Your task to perform on an android device: Empty the shopping cart on costco. Search for apple airpods on costco, select the first entry, and add it to the cart. Image 0: 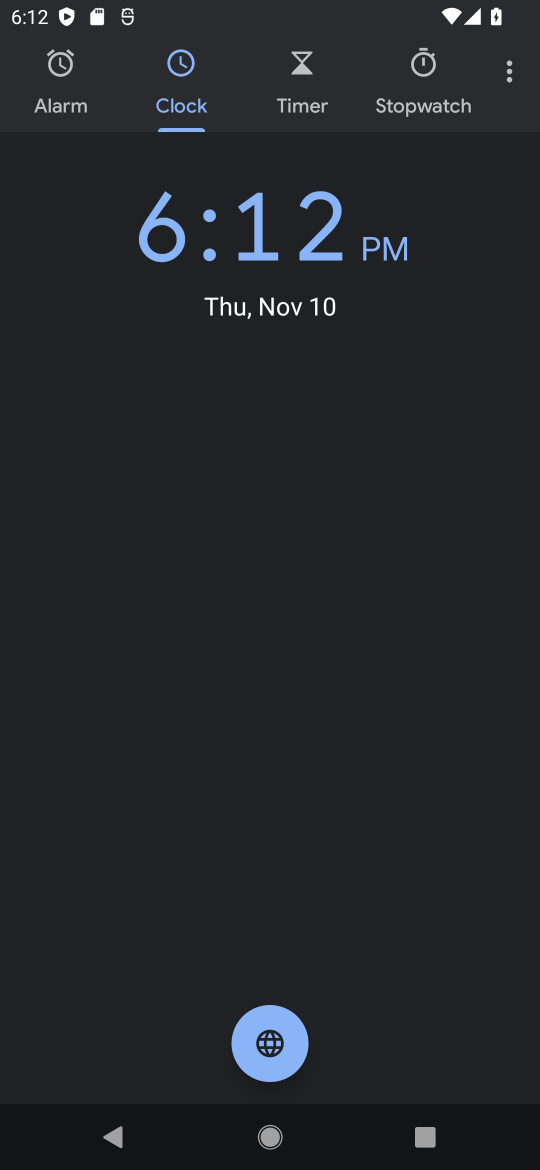
Step 0: press home button
Your task to perform on an android device: Empty the shopping cart on costco. Search for apple airpods on costco, select the first entry, and add it to the cart. Image 1: 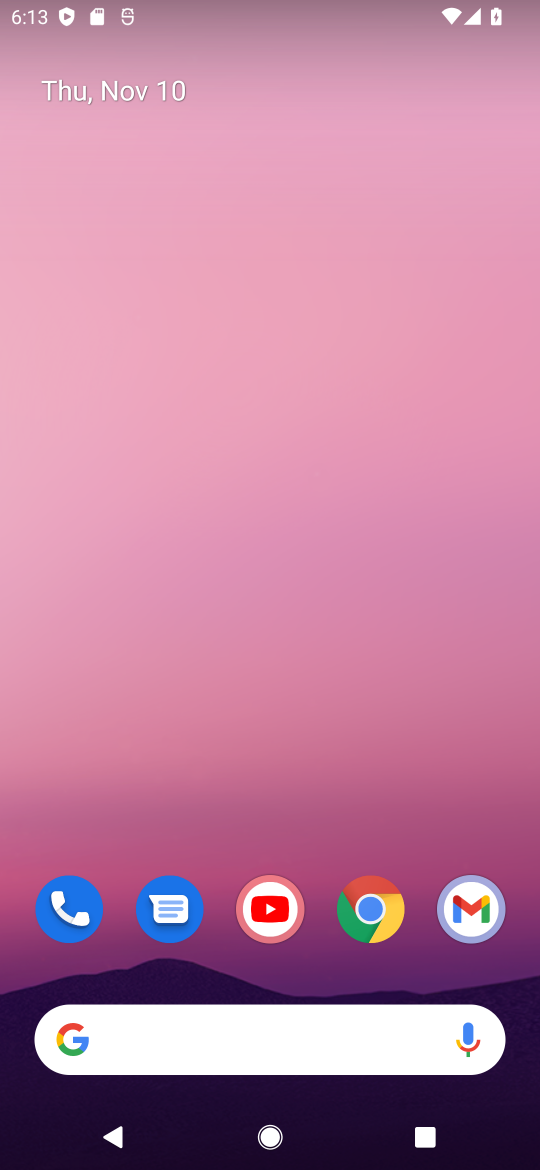
Step 1: drag from (204, 1051) to (266, 328)
Your task to perform on an android device: Empty the shopping cart on costco. Search for apple airpods on costco, select the first entry, and add it to the cart. Image 2: 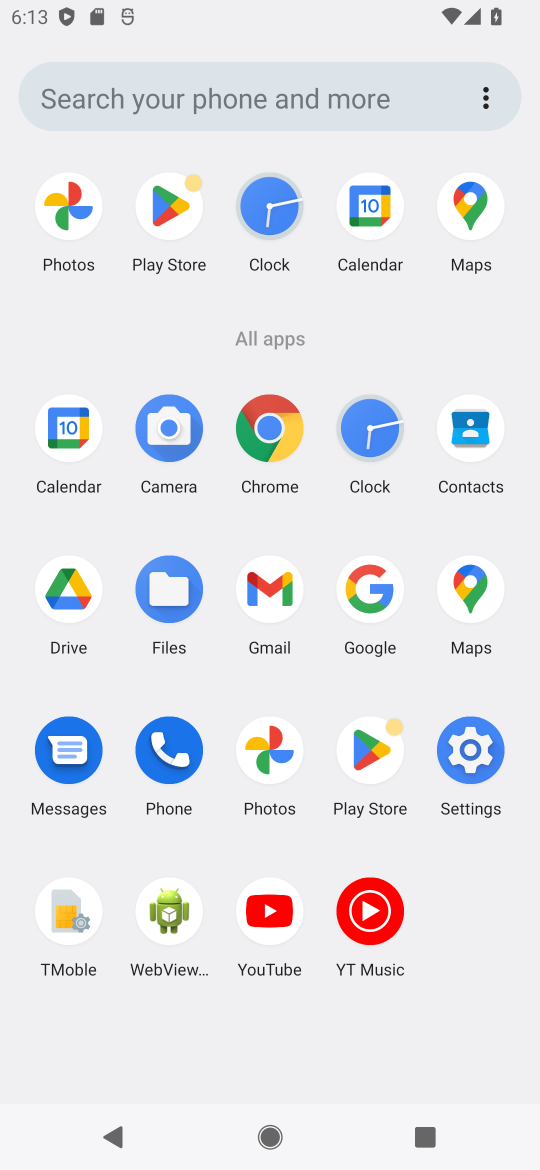
Step 2: click (362, 573)
Your task to perform on an android device: Empty the shopping cart on costco. Search for apple airpods on costco, select the first entry, and add it to the cart. Image 3: 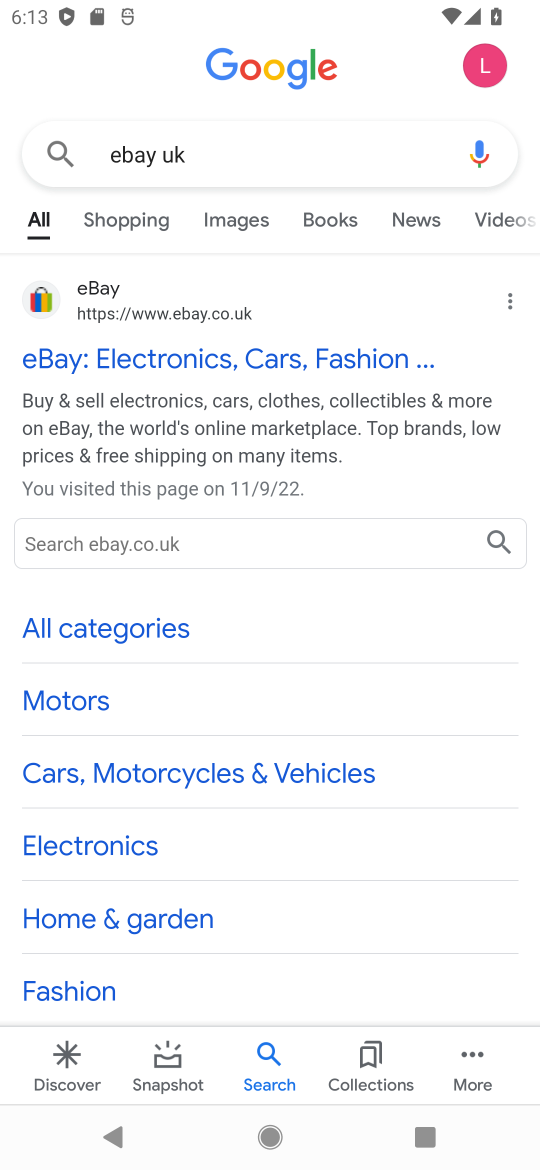
Step 3: click (311, 135)
Your task to perform on an android device: Empty the shopping cart on costco. Search for apple airpods on costco, select the first entry, and add it to the cart. Image 4: 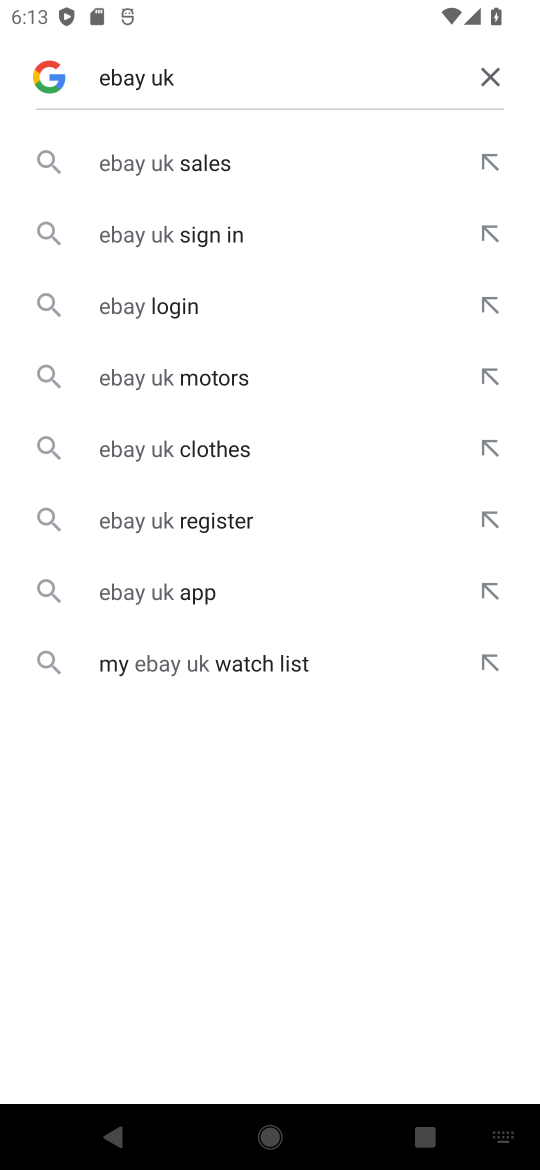
Step 4: click (493, 68)
Your task to perform on an android device: Empty the shopping cart on costco. Search for apple airpods on costco, select the first entry, and add it to the cart. Image 5: 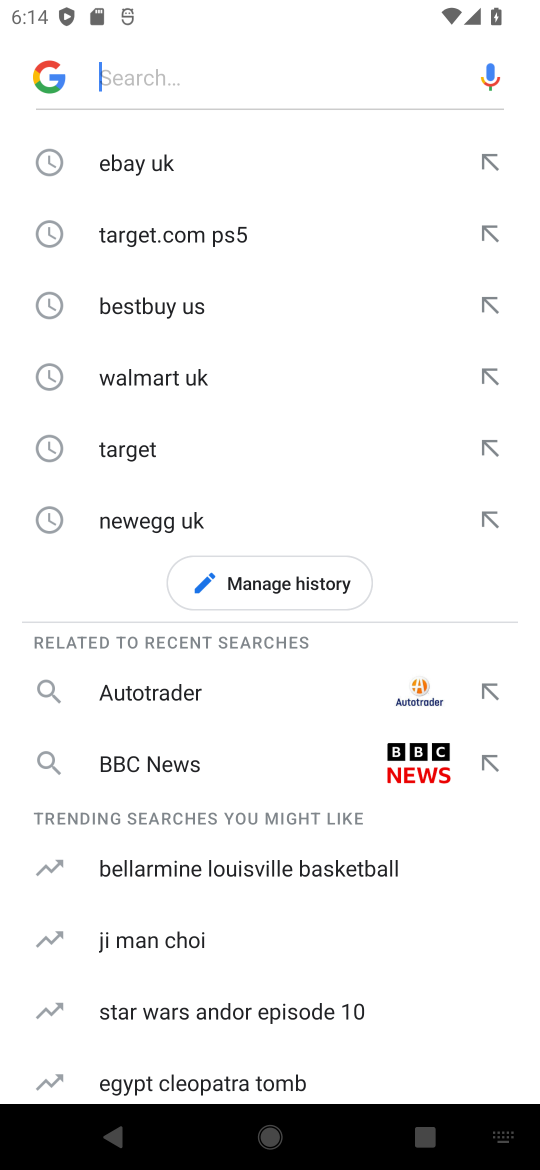
Step 5: click (194, 81)
Your task to perform on an android device: Empty the shopping cart on costco. Search for apple airpods on costco, select the first entry, and add it to the cart. Image 6: 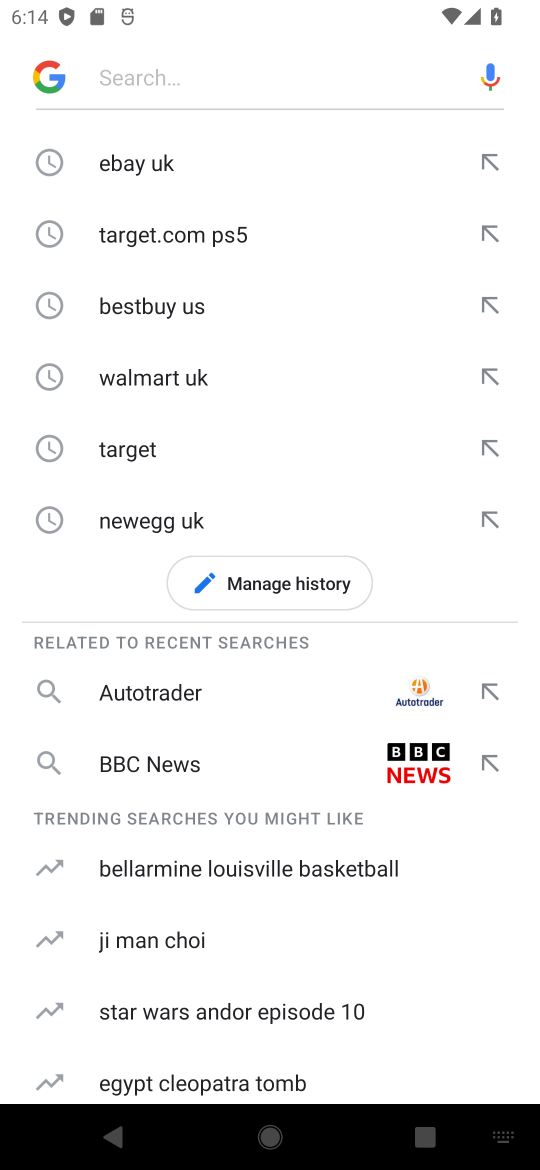
Step 6: type "costco "
Your task to perform on an android device: Empty the shopping cart on costco. Search for apple airpods on costco, select the first entry, and add it to the cart. Image 7: 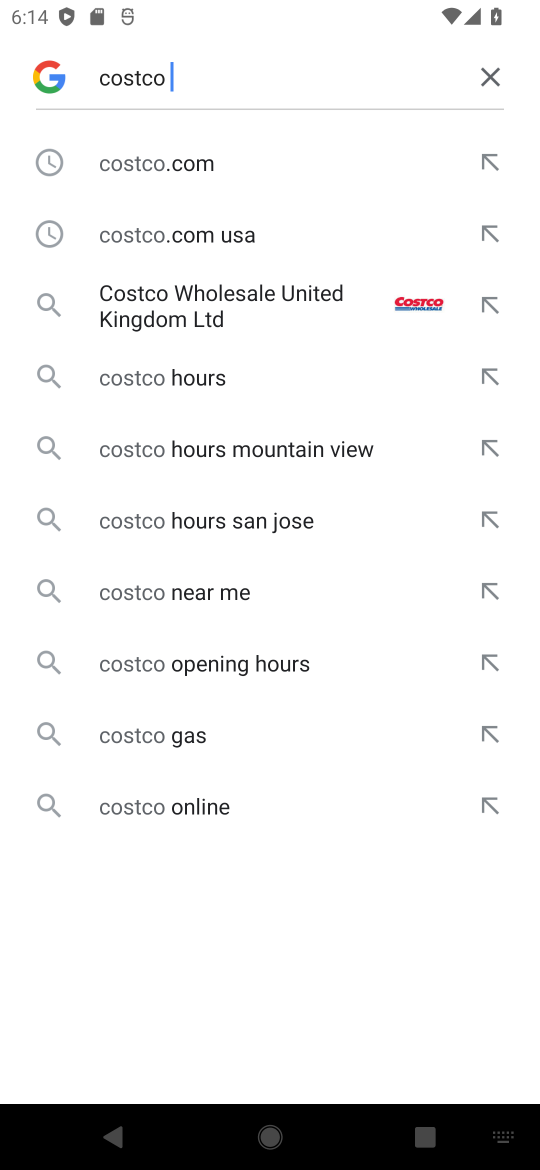
Step 7: click (185, 161)
Your task to perform on an android device: Empty the shopping cart on costco. Search for apple airpods on costco, select the first entry, and add it to the cart. Image 8: 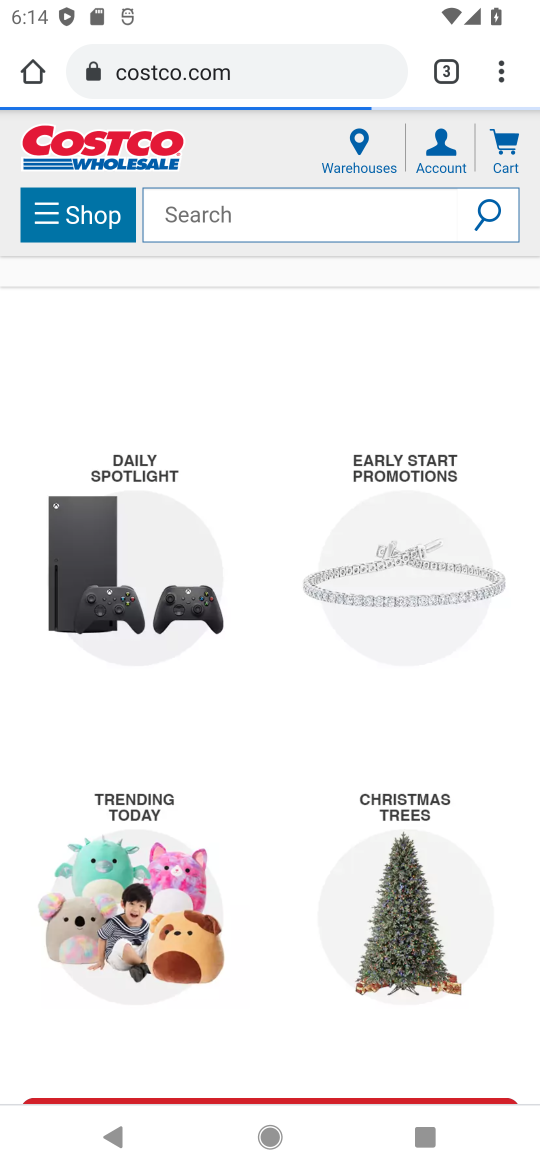
Step 8: click (336, 204)
Your task to perform on an android device: Empty the shopping cart on costco. Search for apple airpods on costco, select the first entry, and add it to the cart. Image 9: 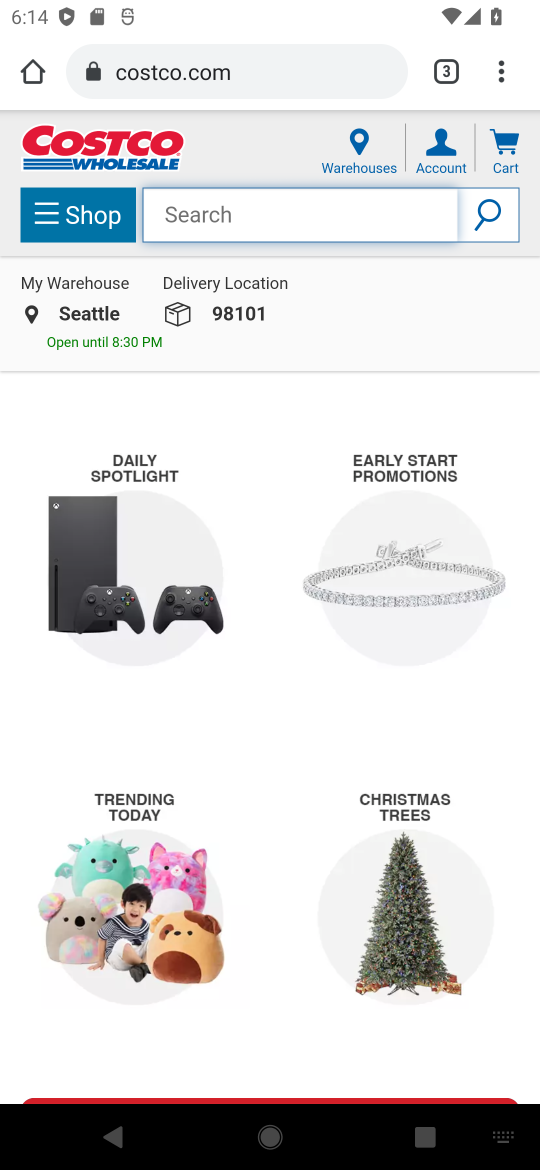
Step 9: click (272, 210)
Your task to perform on an android device: Empty the shopping cart on costco. Search for apple airpods on costco, select the first entry, and add it to the cart. Image 10: 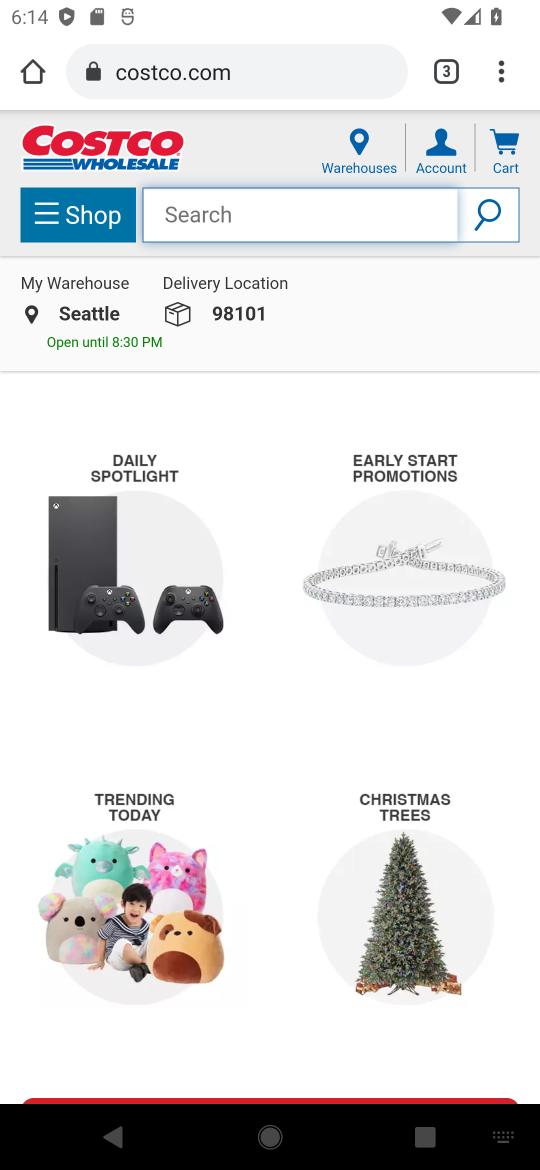
Step 10: type "apple airpods "
Your task to perform on an android device: Empty the shopping cart on costco. Search for apple airpods on costco, select the first entry, and add it to the cart. Image 11: 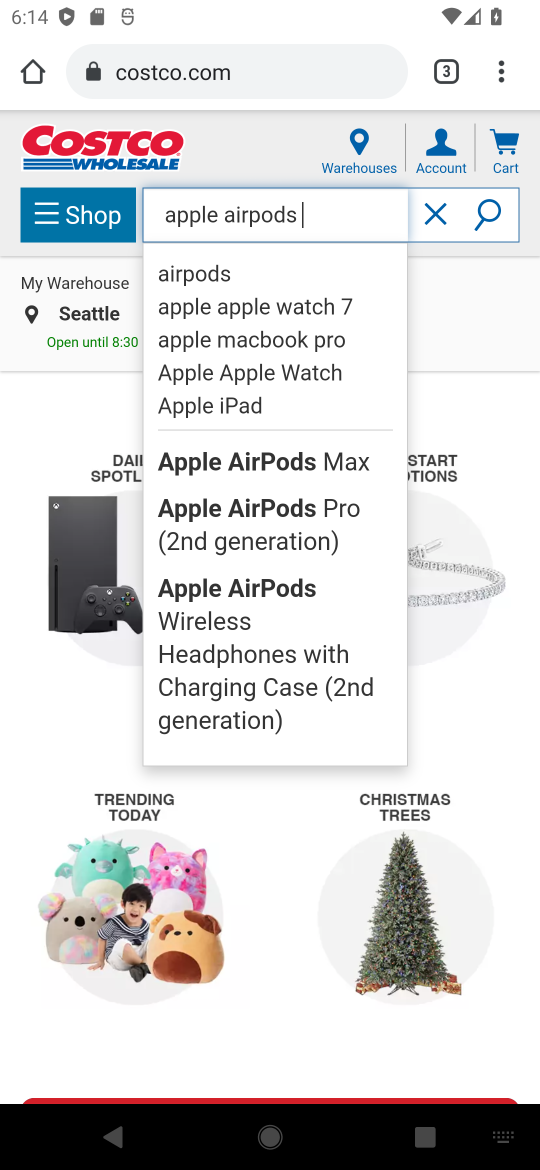
Step 11: click (270, 451)
Your task to perform on an android device: Empty the shopping cart on costco. Search for apple airpods on costco, select the first entry, and add it to the cart. Image 12: 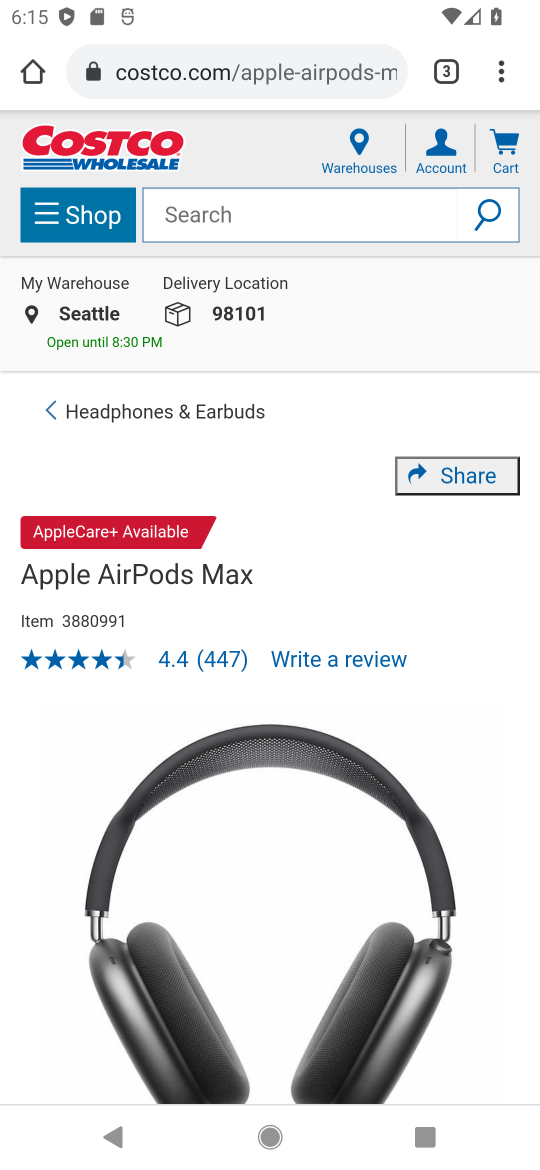
Step 12: drag from (348, 832) to (320, 116)
Your task to perform on an android device: Empty the shopping cart on costco. Search for apple airpods on costco, select the first entry, and add it to the cart. Image 13: 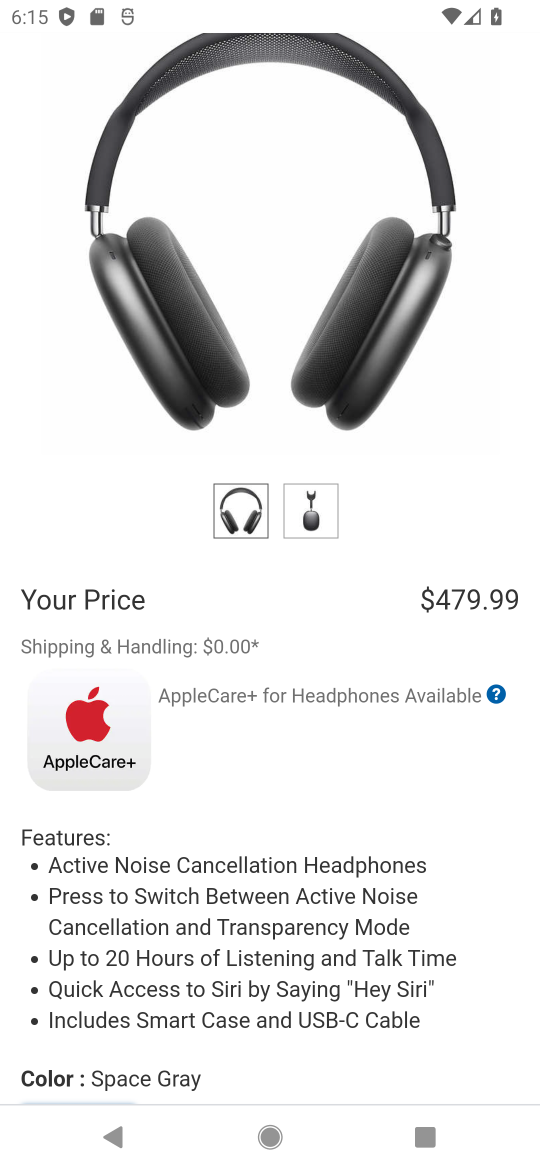
Step 13: drag from (344, 866) to (323, 118)
Your task to perform on an android device: Empty the shopping cart on costco. Search for apple airpods on costco, select the first entry, and add it to the cart. Image 14: 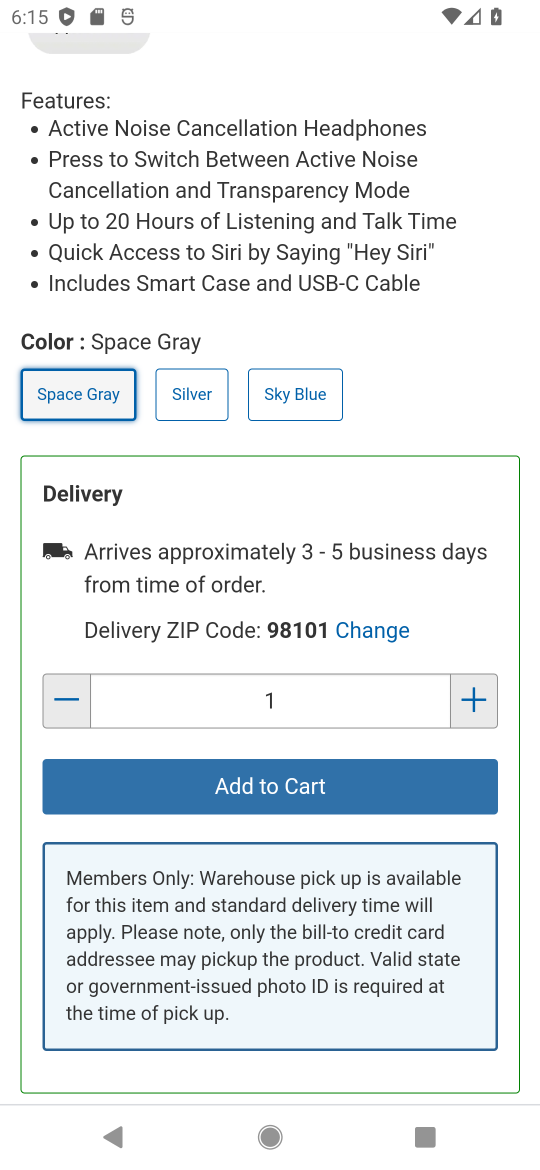
Step 14: drag from (310, 774) to (295, 127)
Your task to perform on an android device: Empty the shopping cart on costco. Search for apple airpods on costco, select the first entry, and add it to the cart. Image 15: 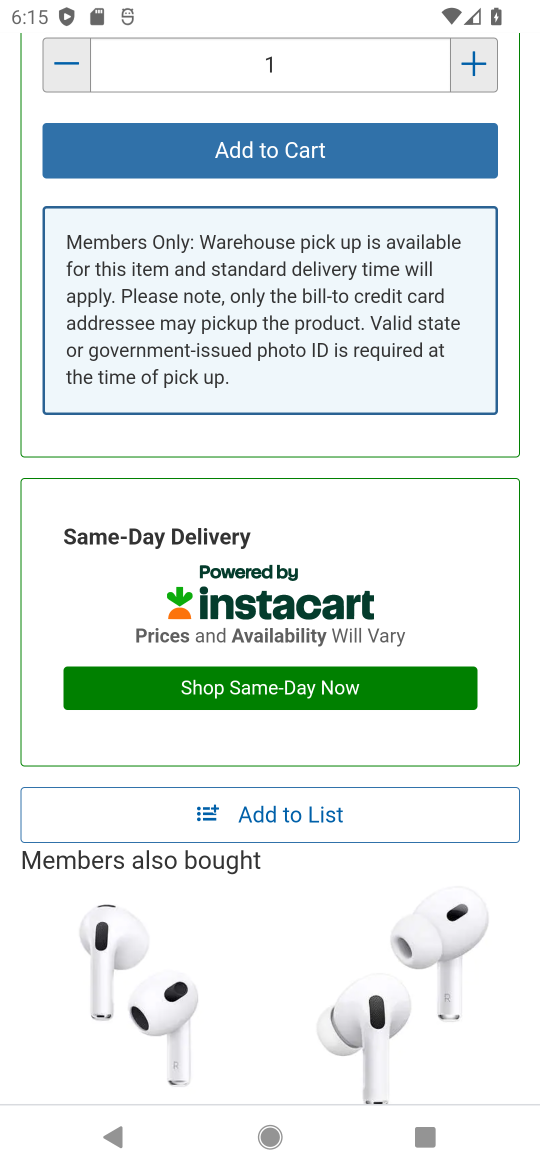
Step 15: drag from (384, 973) to (445, 130)
Your task to perform on an android device: Empty the shopping cart on costco. Search for apple airpods on costco, select the first entry, and add it to the cart. Image 16: 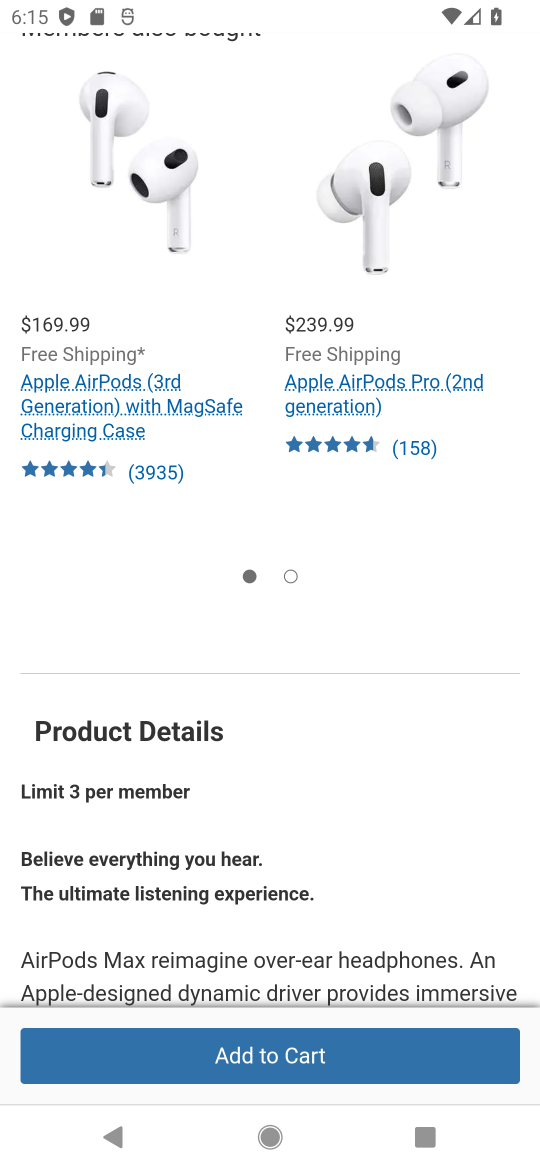
Step 16: drag from (391, 961) to (385, 762)
Your task to perform on an android device: Empty the shopping cart on costco. Search for apple airpods on costco, select the first entry, and add it to the cart. Image 17: 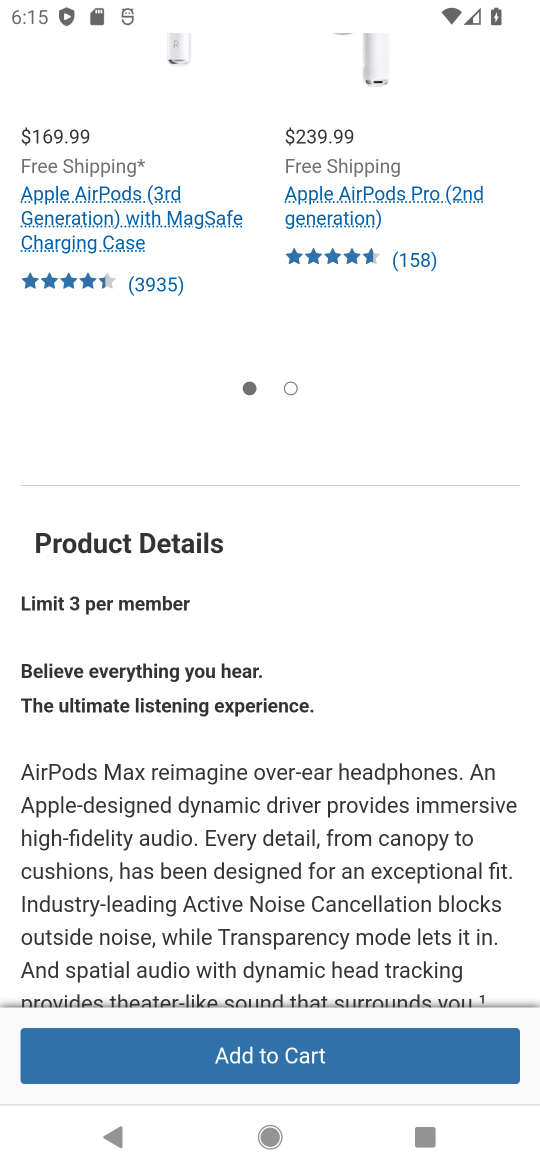
Step 17: click (340, 1050)
Your task to perform on an android device: Empty the shopping cart on costco. Search for apple airpods on costco, select the first entry, and add it to the cart. Image 18: 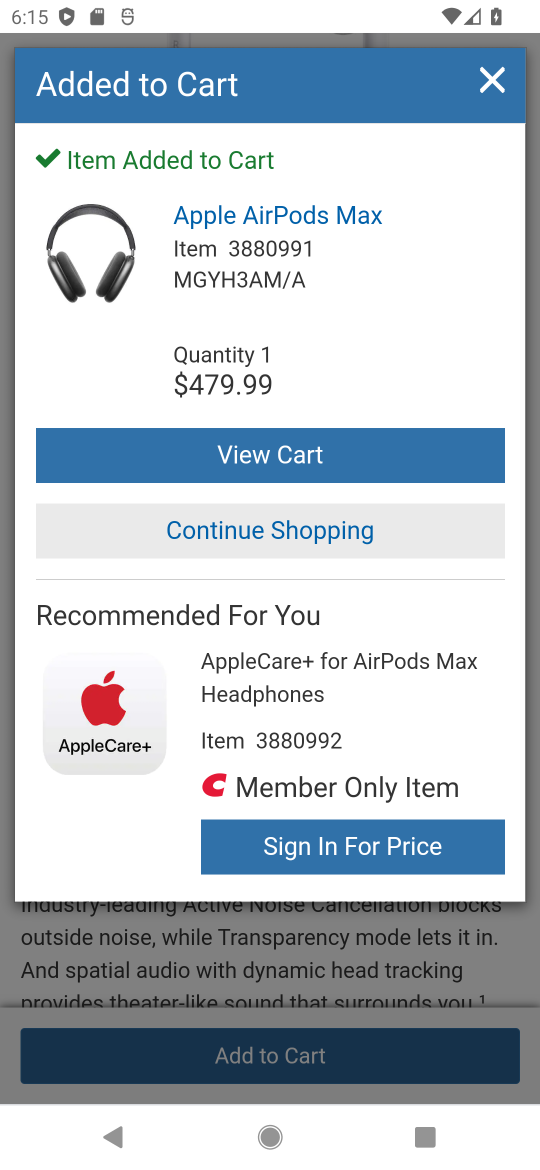
Step 18: task complete